Your task to perform on an android device: check data usage Image 0: 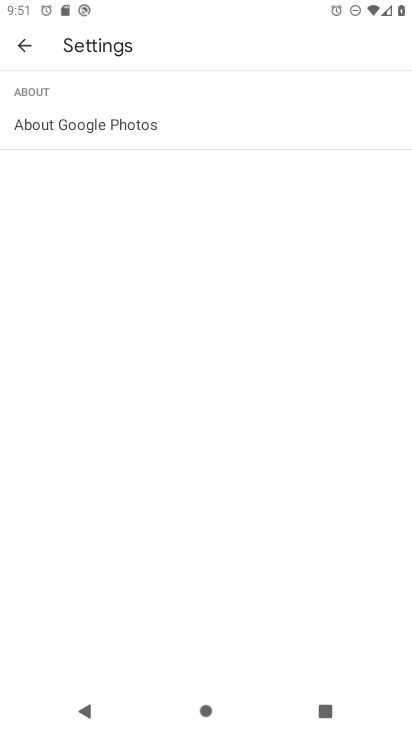
Step 0: press home button
Your task to perform on an android device: check data usage Image 1: 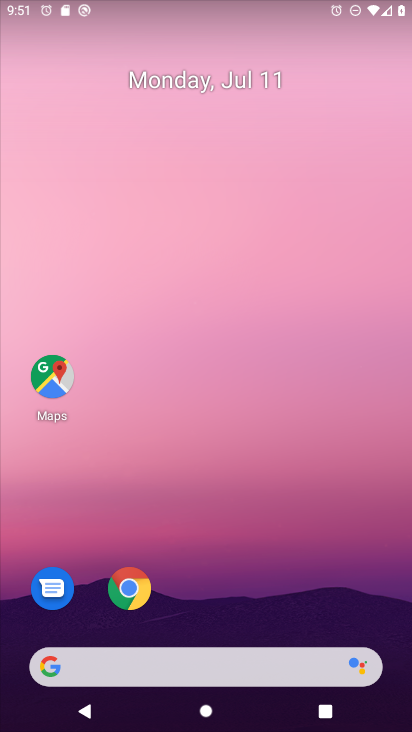
Step 1: drag from (168, 663) to (316, 68)
Your task to perform on an android device: check data usage Image 2: 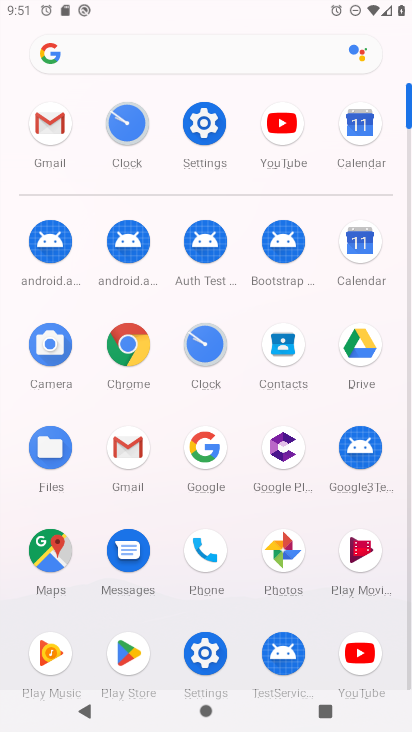
Step 2: click (219, 124)
Your task to perform on an android device: check data usage Image 3: 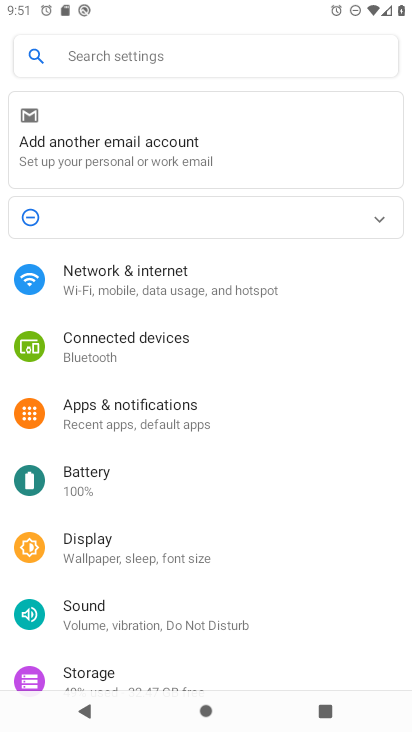
Step 3: click (179, 282)
Your task to perform on an android device: check data usage Image 4: 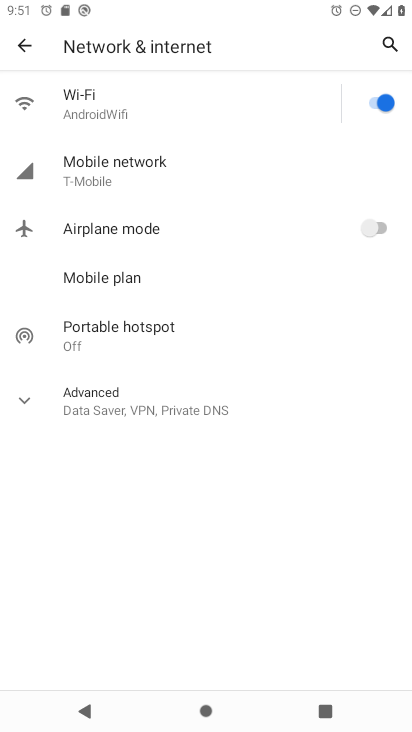
Step 4: click (129, 113)
Your task to perform on an android device: check data usage Image 5: 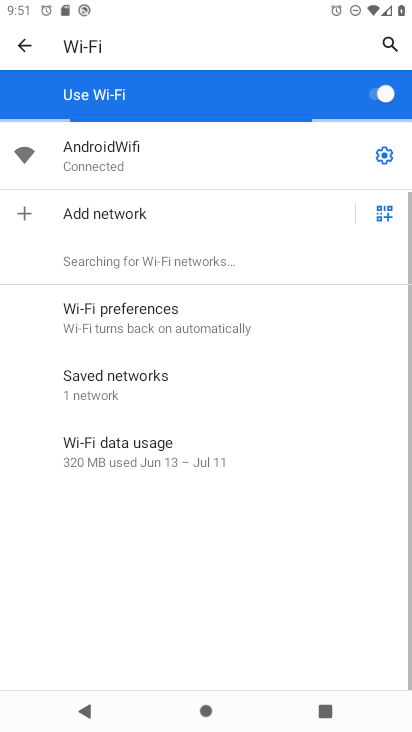
Step 5: click (123, 440)
Your task to perform on an android device: check data usage Image 6: 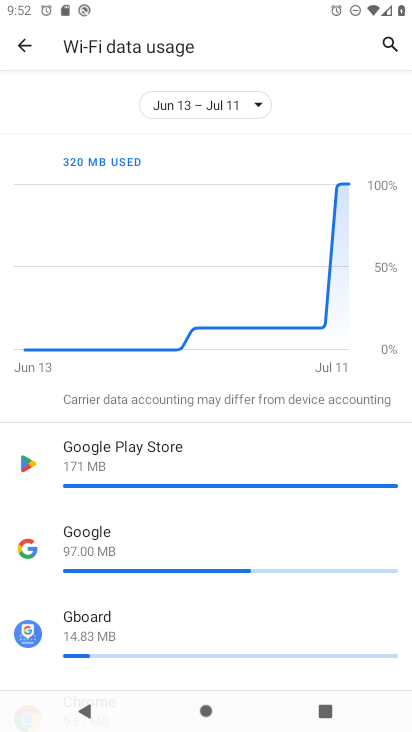
Step 6: task complete